Your task to perform on an android device: turn on the 12-hour format for clock Image 0: 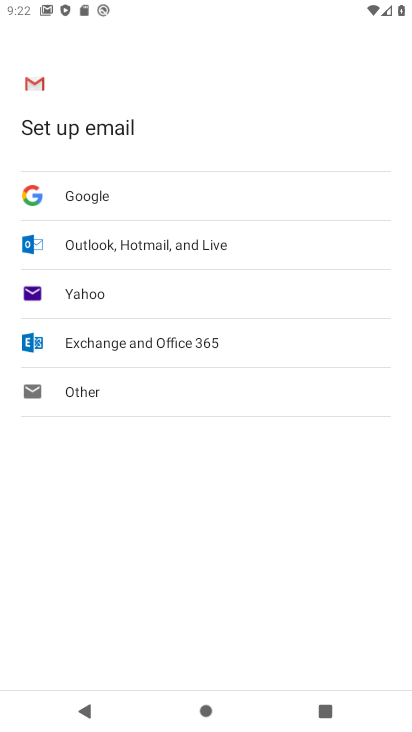
Step 0: click (53, 367)
Your task to perform on an android device: turn on the 12-hour format for clock Image 1: 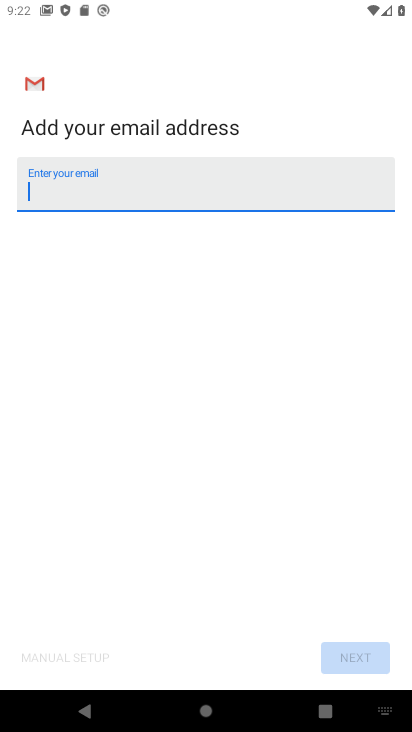
Step 1: press home button
Your task to perform on an android device: turn on the 12-hour format for clock Image 2: 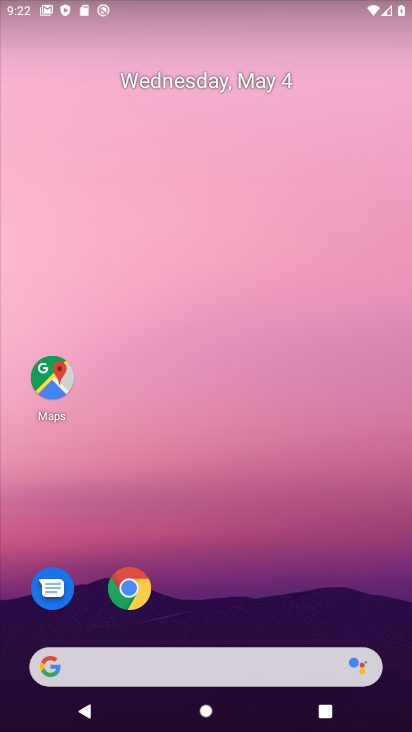
Step 2: drag from (202, 627) to (264, 160)
Your task to perform on an android device: turn on the 12-hour format for clock Image 3: 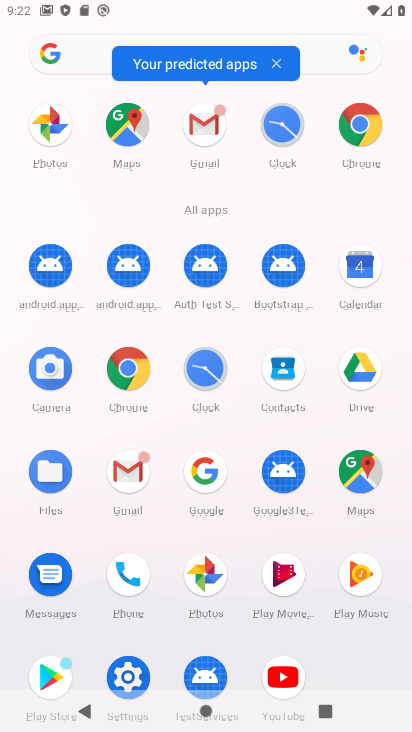
Step 3: click (281, 144)
Your task to perform on an android device: turn on the 12-hour format for clock Image 4: 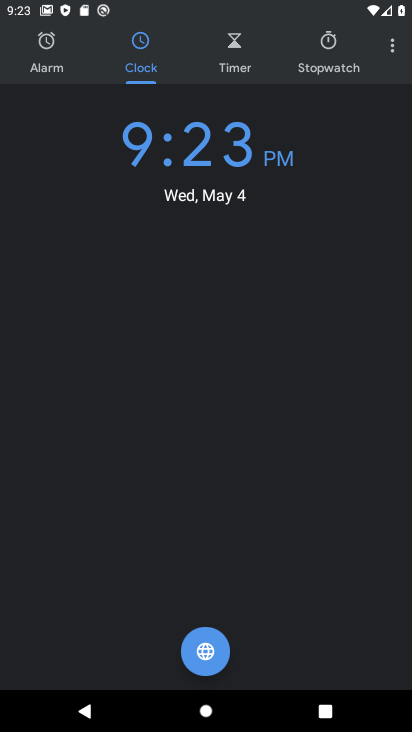
Step 4: click (397, 42)
Your task to perform on an android device: turn on the 12-hour format for clock Image 5: 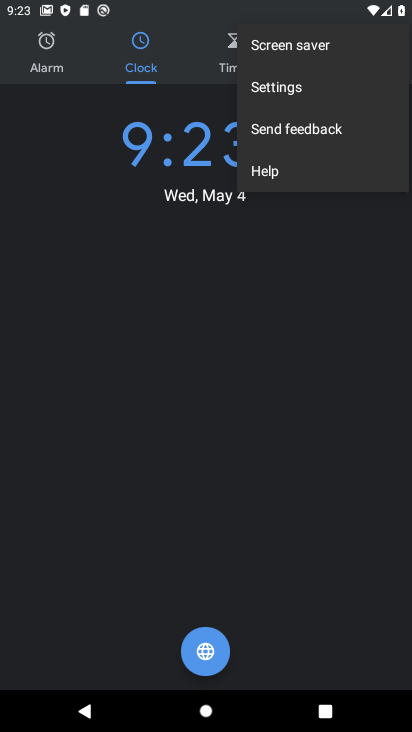
Step 5: click (284, 84)
Your task to perform on an android device: turn on the 12-hour format for clock Image 6: 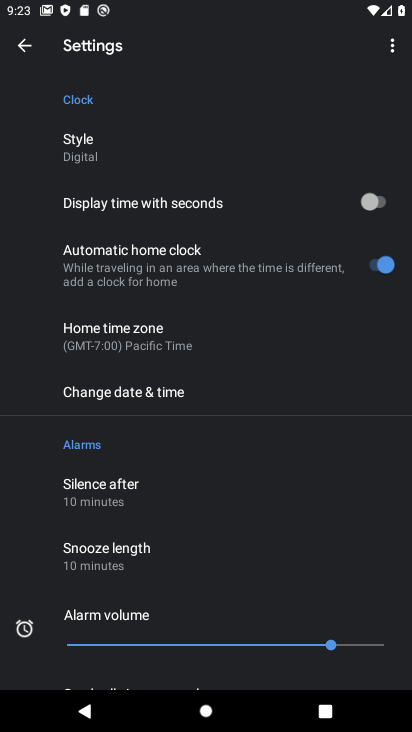
Step 6: drag from (137, 555) to (173, 363)
Your task to perform on an android device: turn on the 12-hour format for clock Image 7: 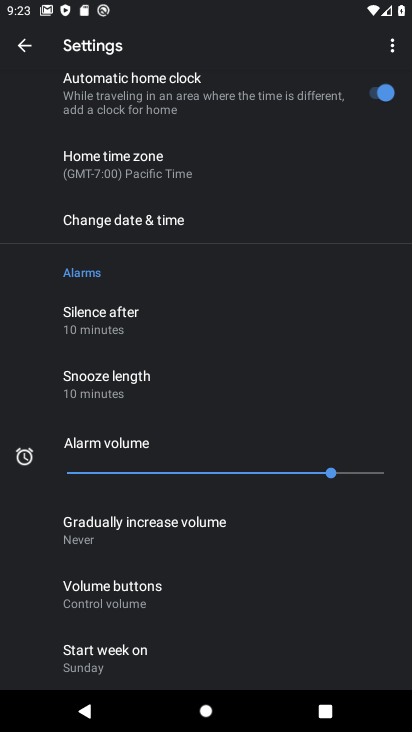
Step 7: click (176, 218)
Your task to perform on an android device: turn on the 12-hour format for clock Image 8: 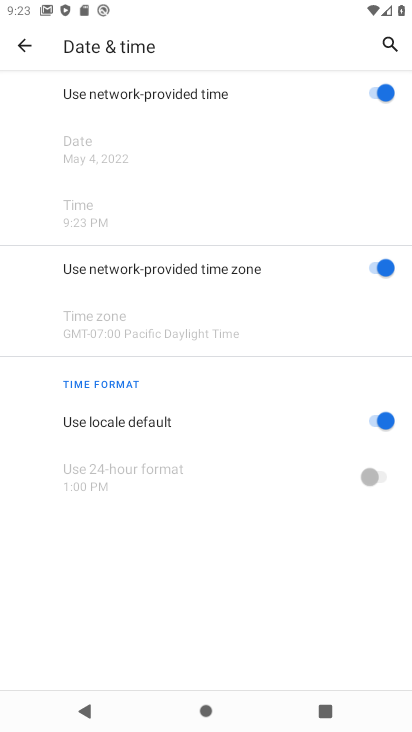
Step 8: task complete